Your task to perform on an android device: turn on wifi Image 0: 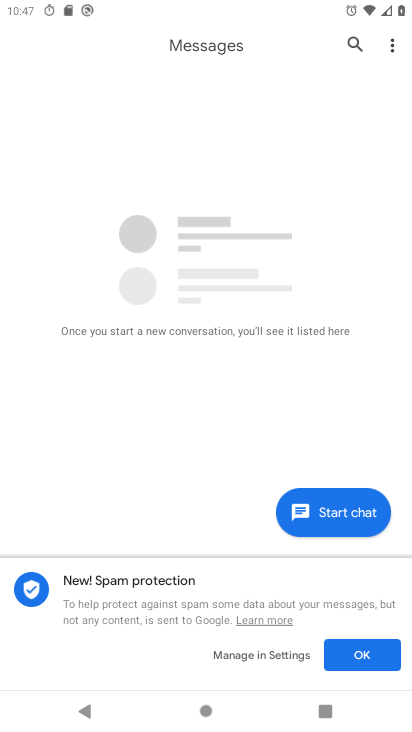
Step 0: press back button
Your task to perform on an android device: turn on wifi Image 1: 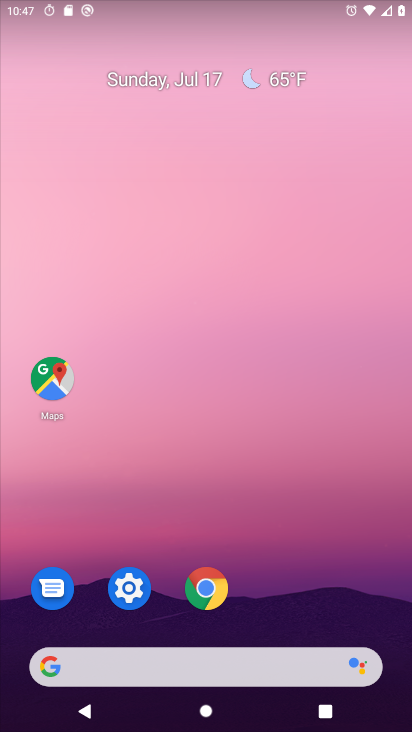
Step 1: click (161, 164)
Your task to perform on an android device: turn on wifi Image 2: 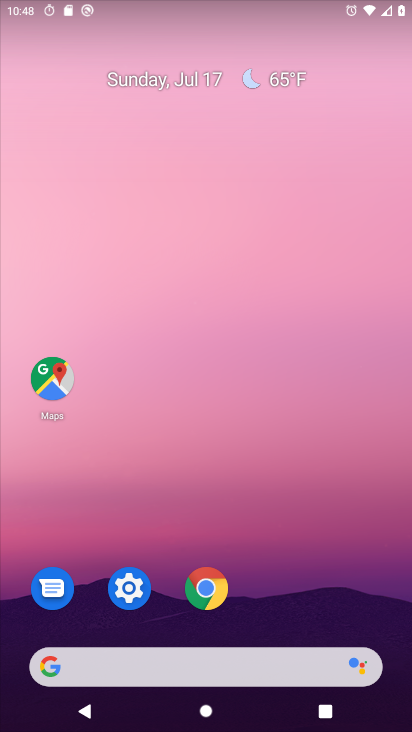
Step 2: drag from (259, 637) to (215, 262)
Your task to perform on an android device: turn on wifi Image 3: 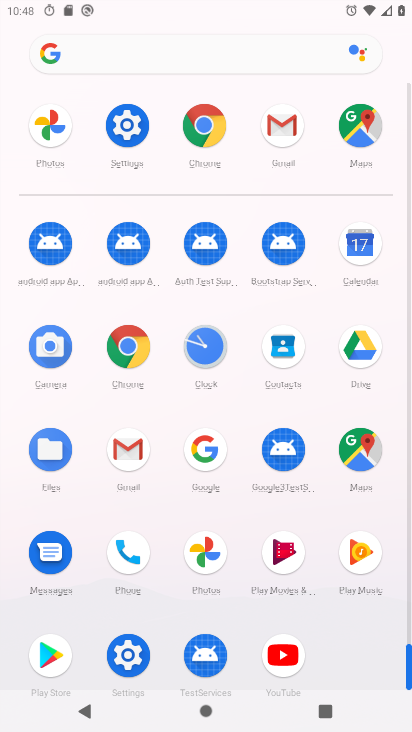
Step 3: click (135, 112)
Your task to perform on an android device: turn on wifi Image 4: 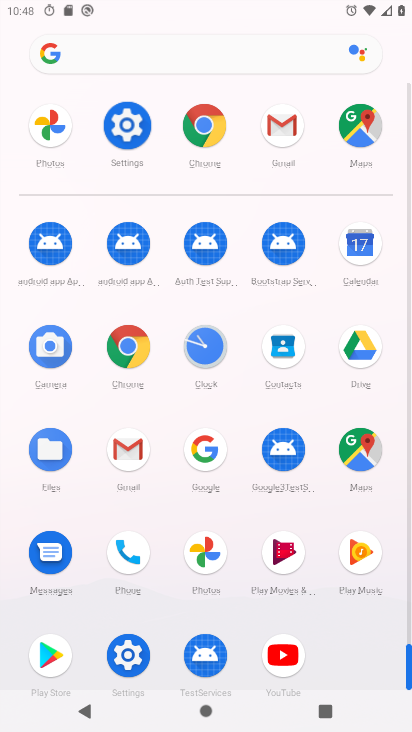
Step 4: click (133, 111)
Your task to perform on an android device: turn on wifi Image 5: 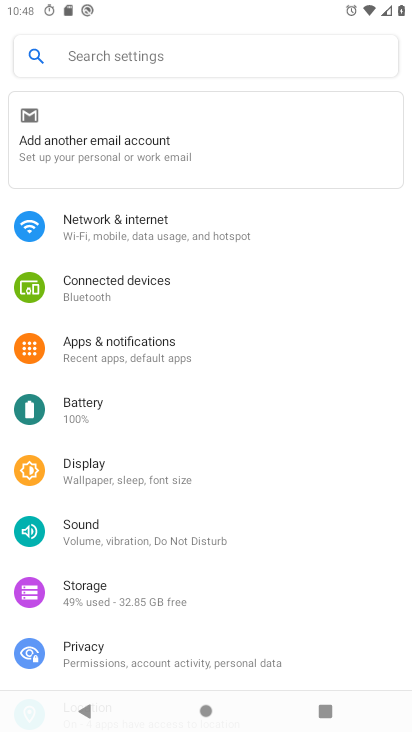
Step 5: click (128, 227)
Your task to perform on an android device: turn on wifi Image 6: 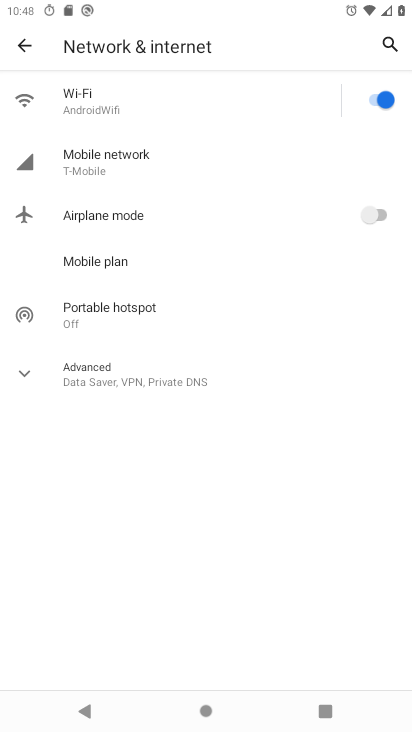
Step 6: task complete